Your task to perform on an android device: Go to CNN.com Image 0: 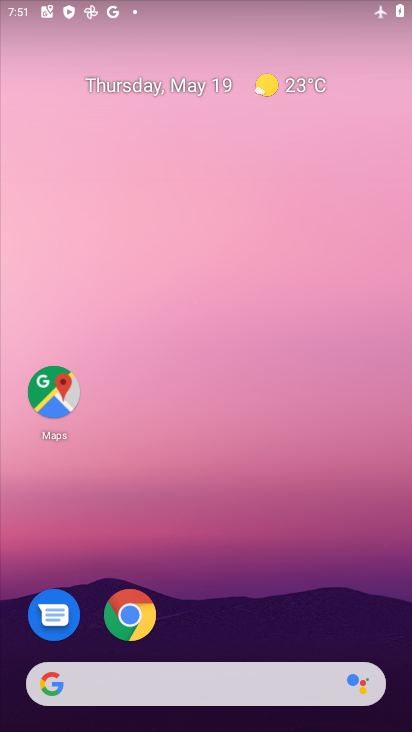
Step 0: drag from (327, 612) to (310, 29)
Your task to perform on an android device: Go to CNN.com Image 1: 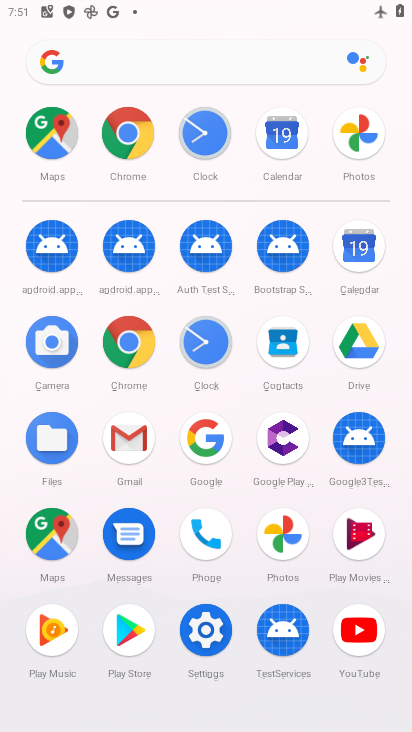
Step 1: click (215, 432)
Your task to perform on an android device: Go to CNN.com Image 2: 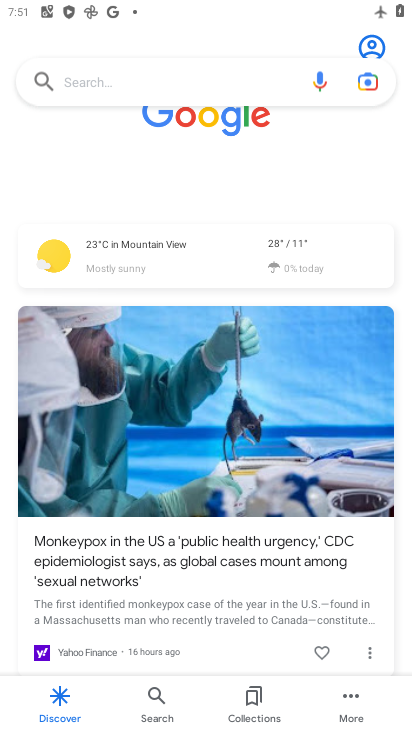
Step 2: click (153, 93)
Your task to perform on an android device: Go to CNN.com Image 3: 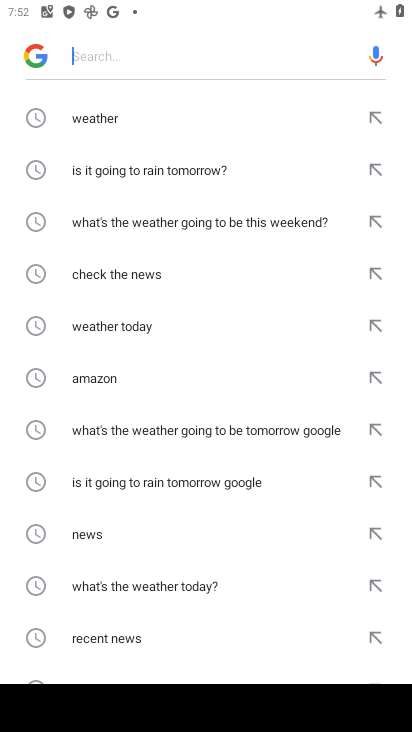
Step 3: drag from (173, 575) to (218, 111)
Your task to perform on an android device: Go to CNN.com Image 4: 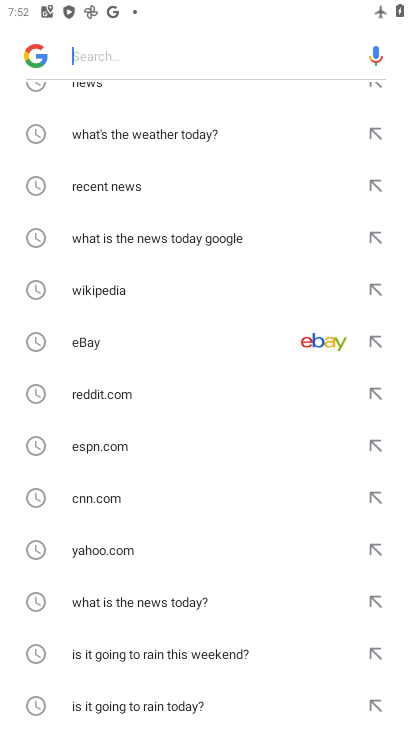
Step 4: click (113, 489)
Your task to perform on an android device: Go to CNN.com Image 5: 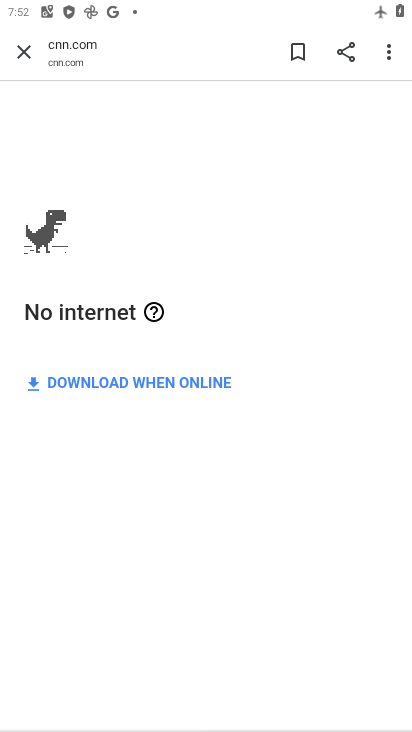
Step 5: task complete